Your task to perform on an android device: Search for pizza restaurants on Maps Image 0: 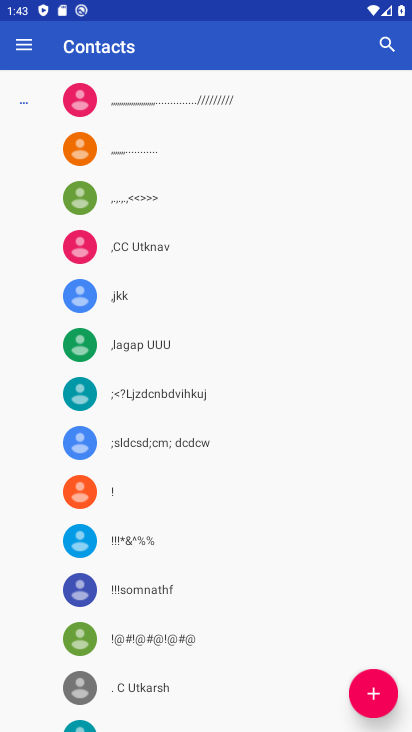
Step 0: press home button
Your task to perform on an android device: Search for pizza restaurants on Maps Image 1: 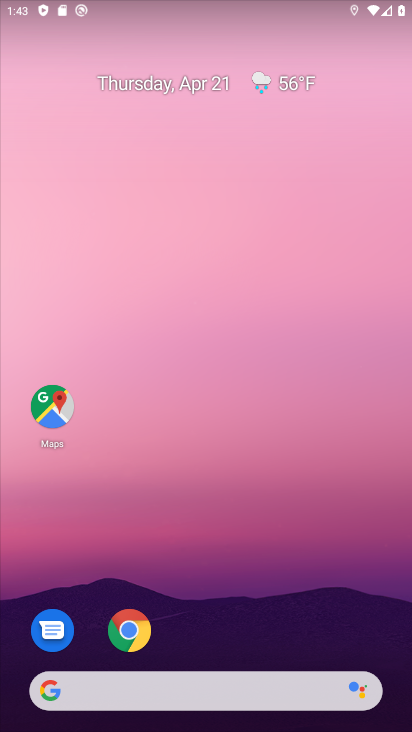
Step 1: click (66, 421)
Your task to perform on an android device: Search for pizza restaurants on Maps Image 2: 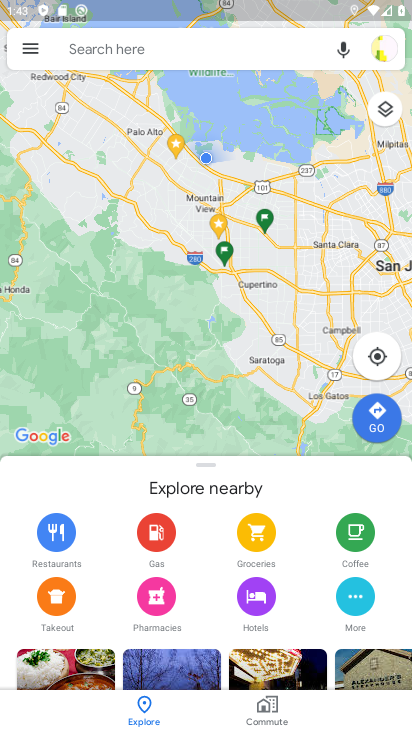
Step 2: click (188, 56)
Your task to perform on an android device: Search for pizza restaurants on Maps Image 3: 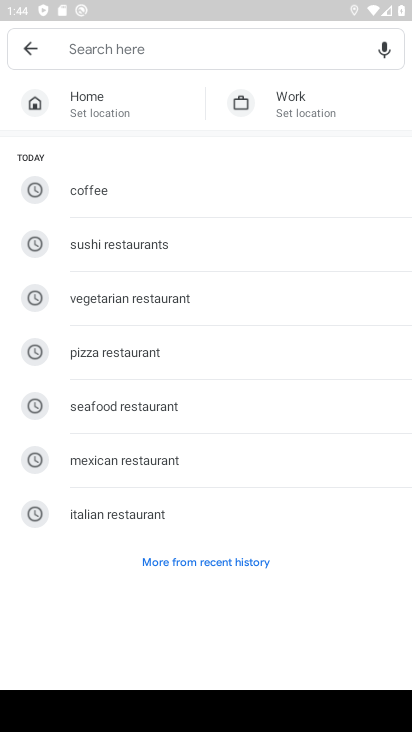
Step 3: click (194, 51)
Your task to perform on an android device: Search for pizza restaurants on Maps Image 4: 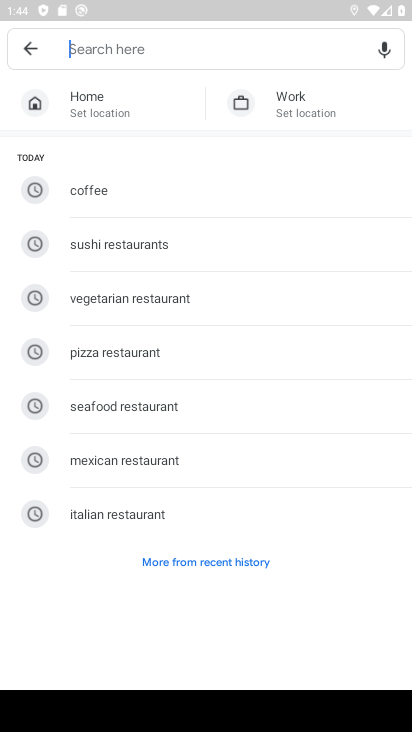
Step 4: click (141, 350)
Your task to perform on an android device: Search for pizza restaurants on Maps Image 5: 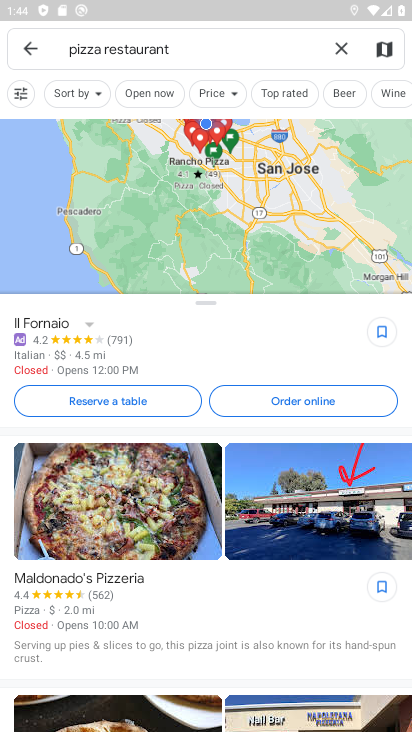
Step 5: task complete